Your task to perform on an android device: Open settings Image 0: 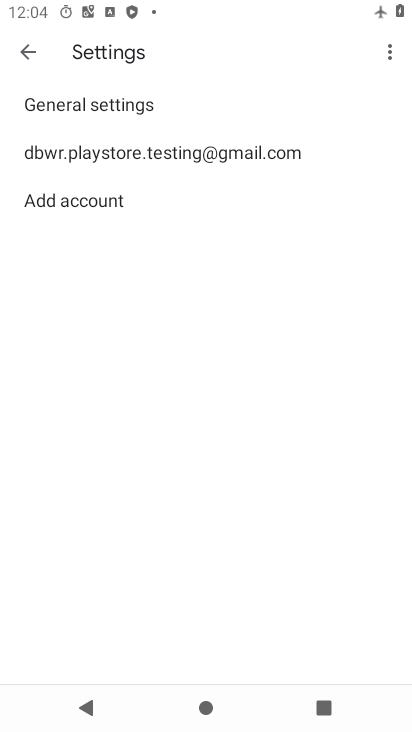
Step 0: press home button
Your task to perform on an android device: Open settings Image 1: 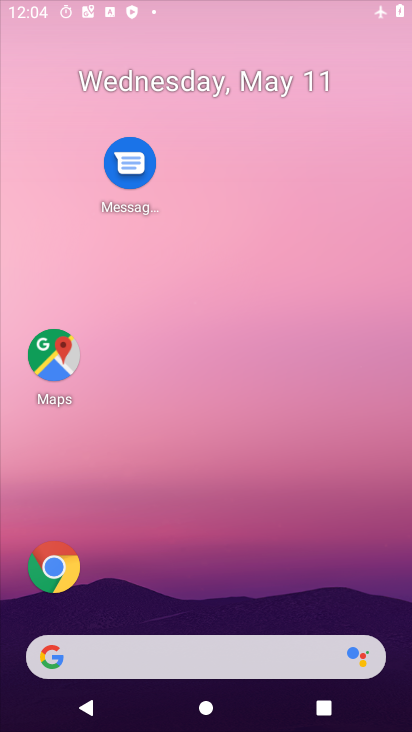
Step 1: drag from (201, 574) to (198, 138)
Your task to perform on an android device: Open settings Image 2: 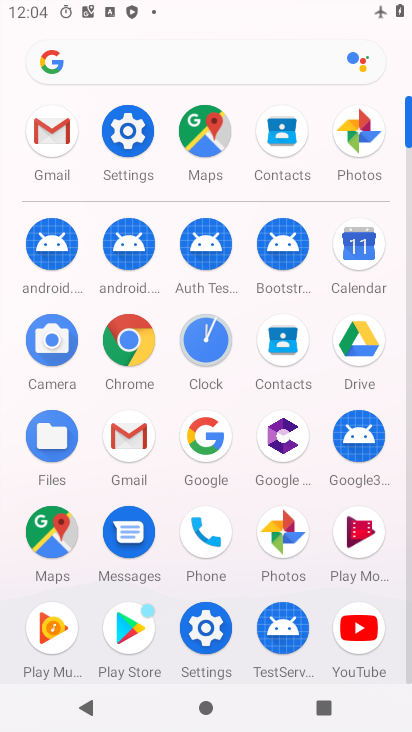
Step 2: click (119, 164)
Your task to perform on an android device: Open settings Image 3: 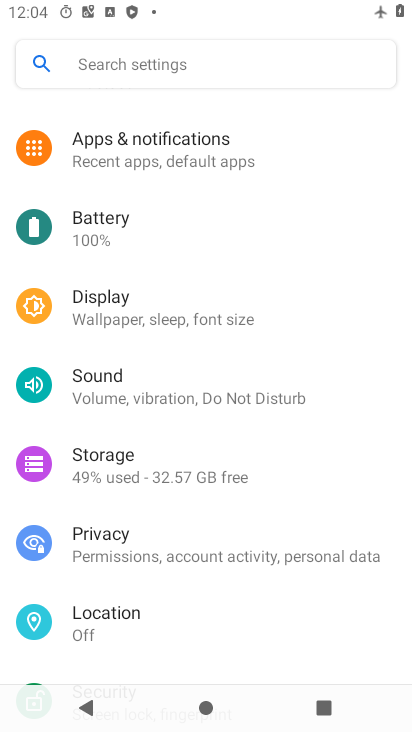
Step 3: task complete